Your task to perform on an android device: Open settings on Google Maps Image 0: 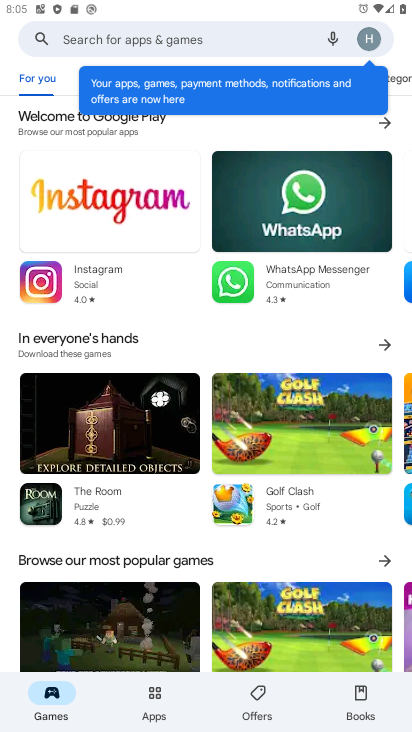
Step 0: press home button
Your task to perform on an android device: Open settings on Google Maps Image 1: 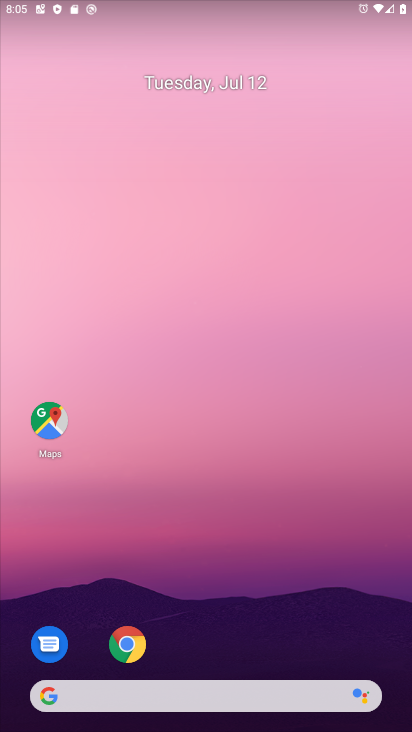
Step 1: drag from (184, 583) to (195, 226)
Your task to perform on an android device: Open settings on Google Maps Image 2: 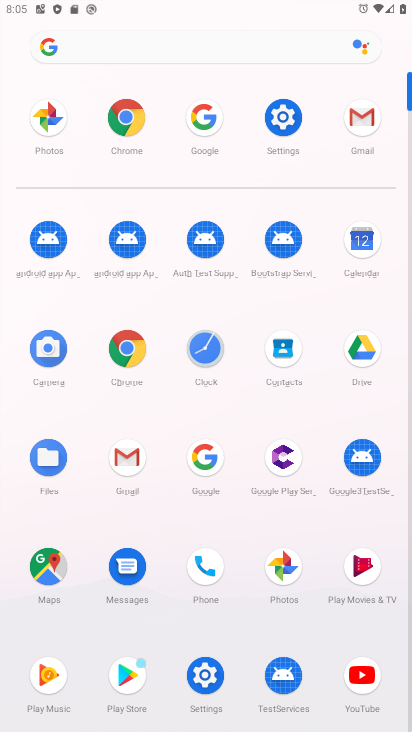
Step 2: click (46, 564)
Your task to perform on an android device: Open settings on Google Maps Image 3: 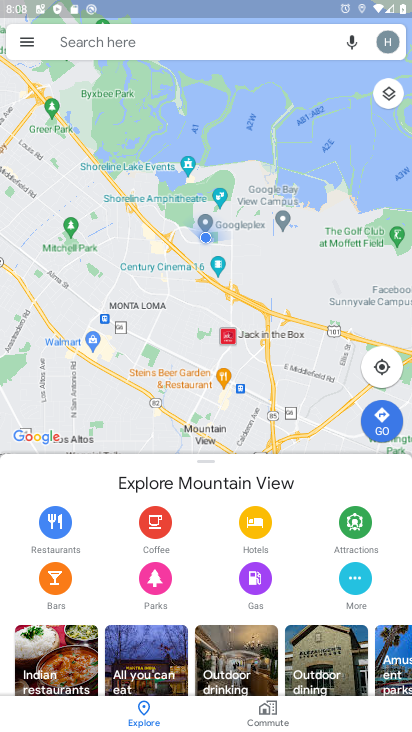
Step 3: click (25, 43)
Your task to perform on an android device: Open settings on Google Maps Image 4: 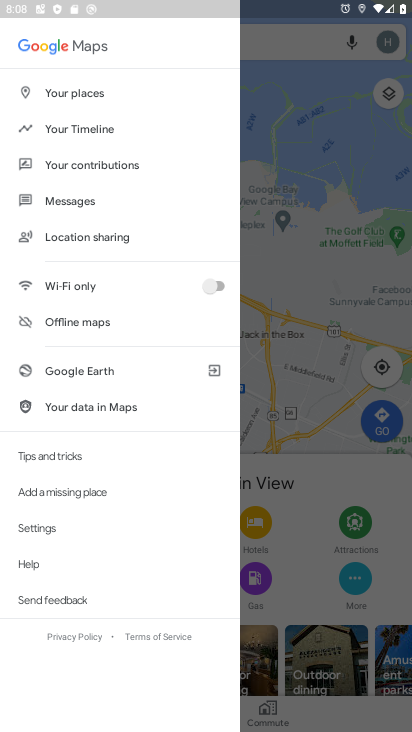
Step 4: click (26, 522)
Your task to perform on an android device: Open settings on Google Maps Image 5: 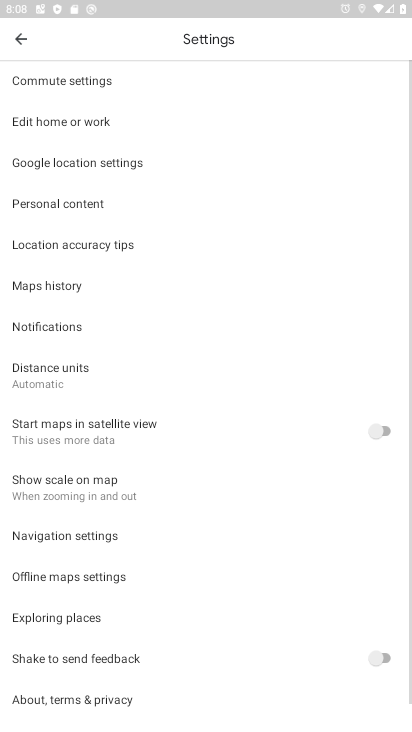
Step 5: task complete